Your task to perform on an android device: Go to location settings Image 0: 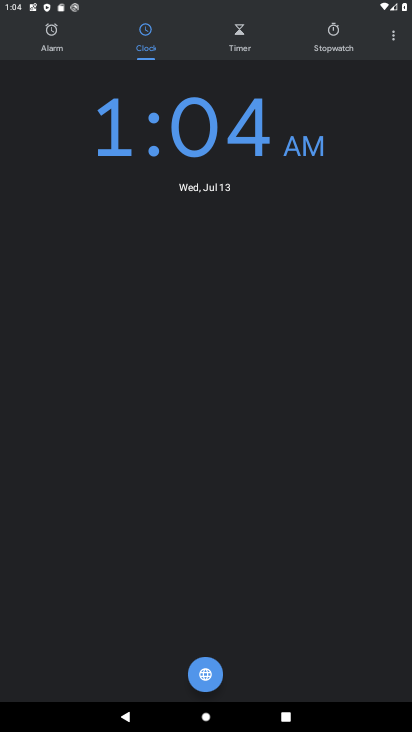
Step 0: press home button
Your task to perform on an android device: Go to location settings Image 1: 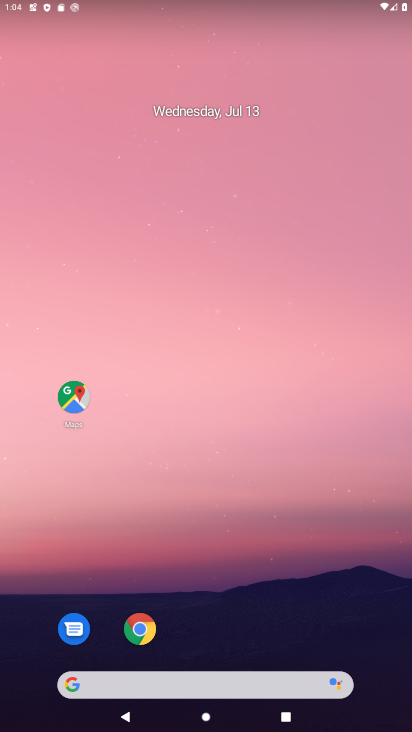
Step 1: drag from (194, 653) to (258, 94)
Your task to perform on an android device: Go to location settings Image 2: 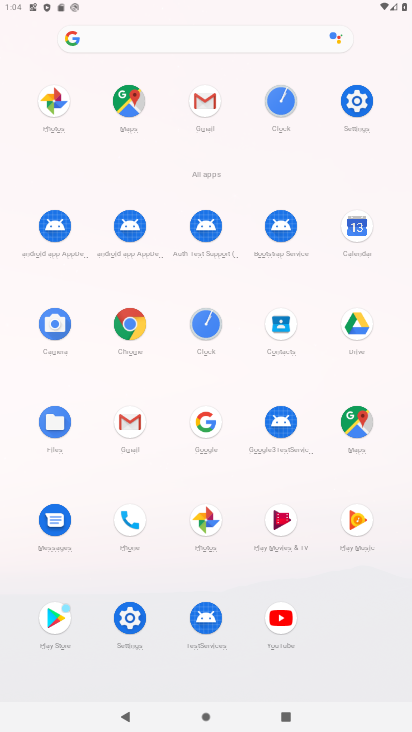
Step 2: click (356, 104)
Your task to perform on an android device: Go to location settings Image 3: 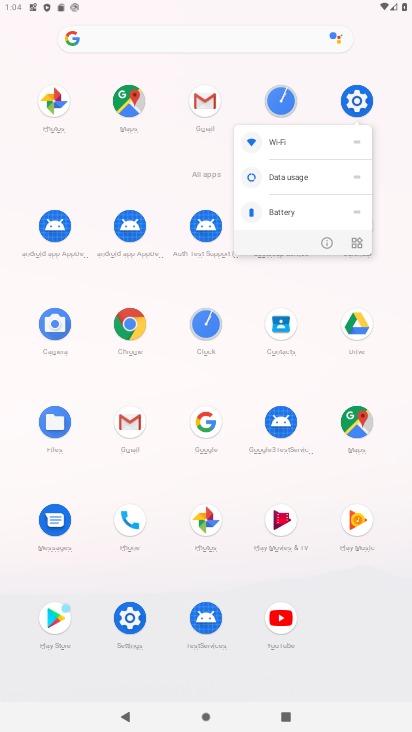
Step 3: click (327, 240)
Your task to perform on an android device: Go to location settings Image 4: 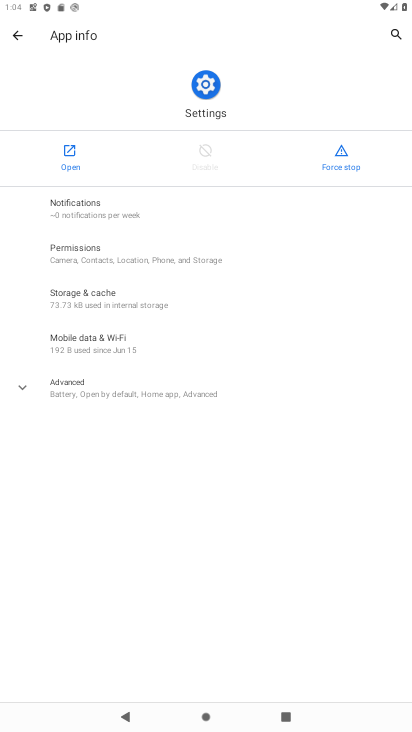
Step 4: click (62, 151)
Your task to perform on an android device: Go to location settings Image 5: 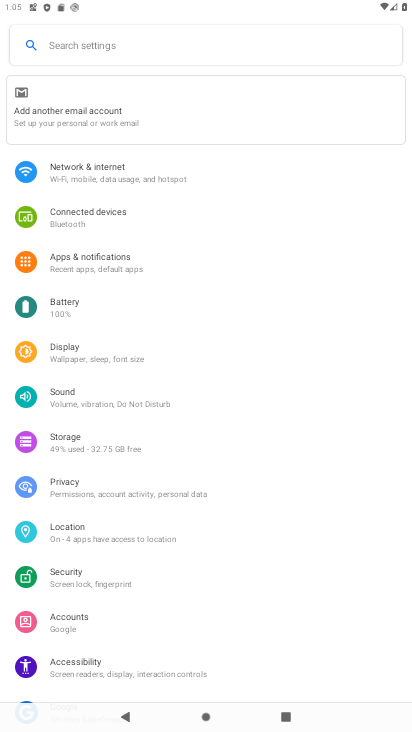
Step 5: click (86, 533)
Your task to perform on an android device: Go to location settings Image 6: 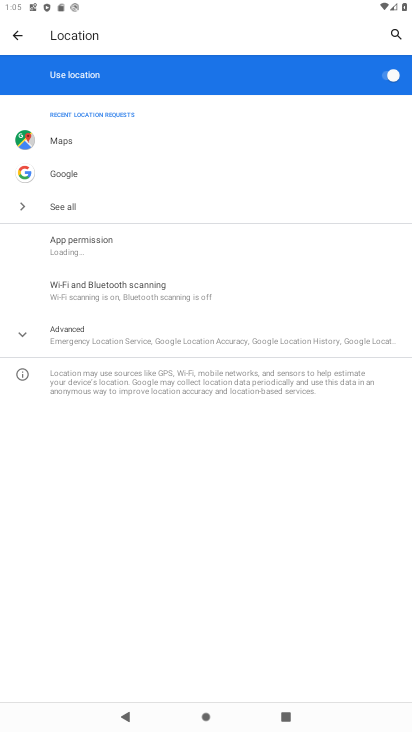
Step 6: task complete